Your task to perform on an android device: Open Chrome and go to settings Image 0: 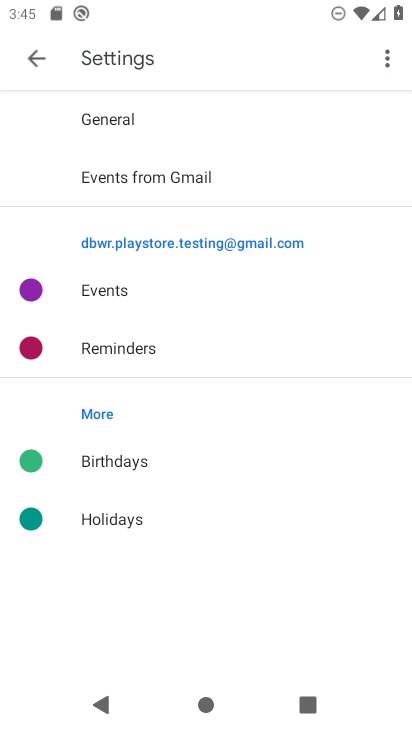
Step 0: press home button
Your task to perform on an android device: Open Chrome and go to settings Image 1: 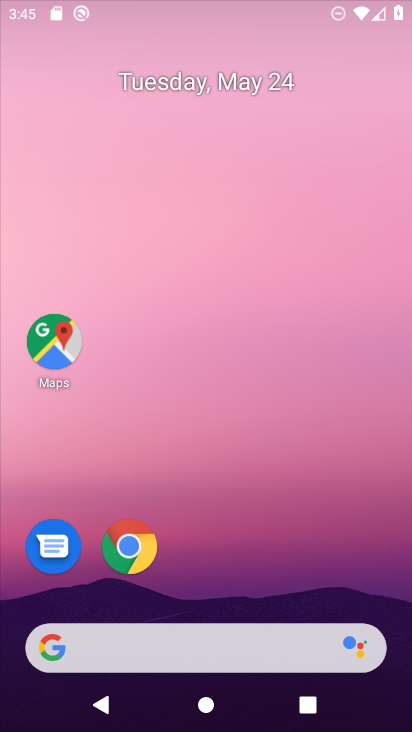
Step 1: drag from (299, 567) to (185, 5)
Your task to perform on an android device: Open Chrome and go to settings Image 2: 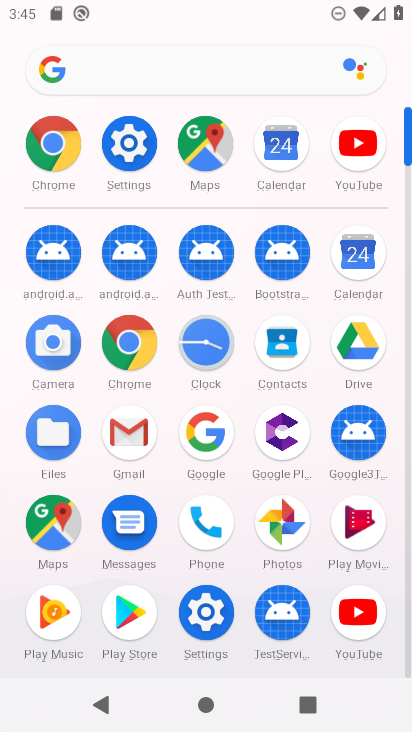
Step 2: click (137, 348)
Your task to perform on an android device: Open Chrome and go to settings Image 3: 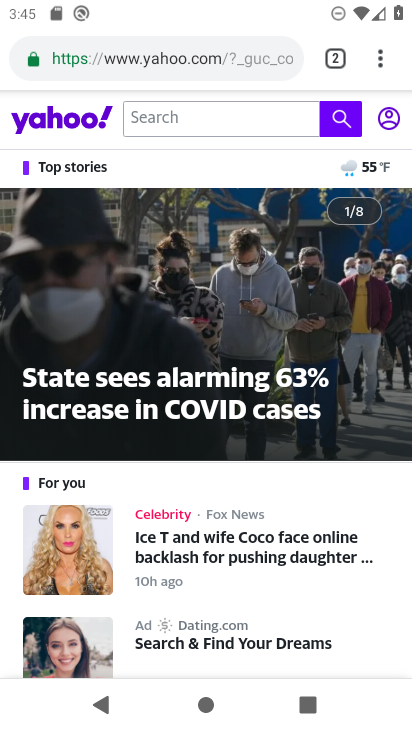
Step 3: click (378, 58)
Your task to perform on an android device: Open Chrome and go to settings Image 4: 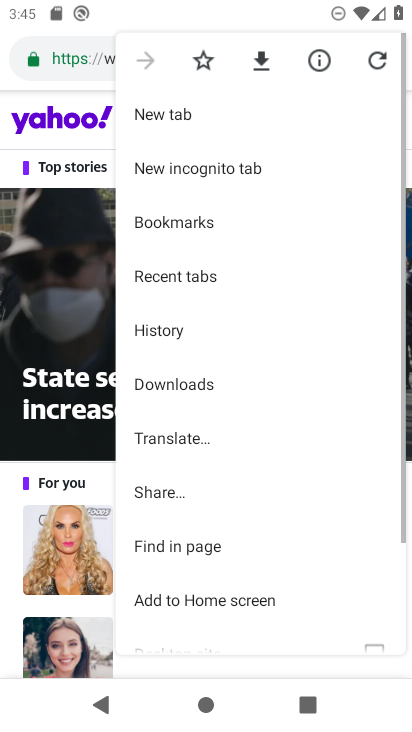
Step 4: drag from (233, 520) to (204, 68)
Your task to perform on an android device: Open Chrome and go to settings Image 5: 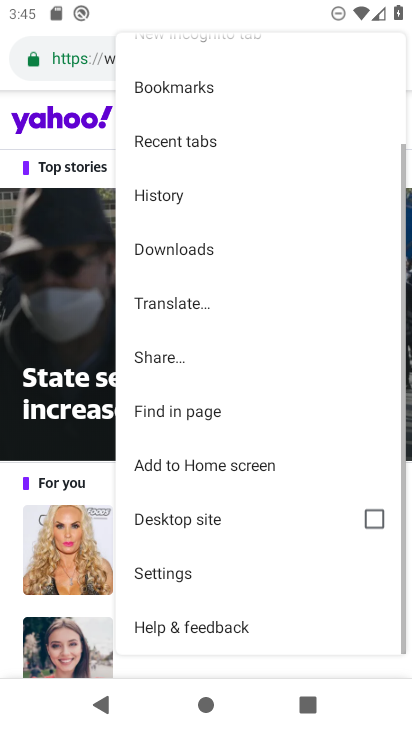
Step 5: click (193, 569)
Your task to perform on an android device: Open Chrome and go to settings Image 6: 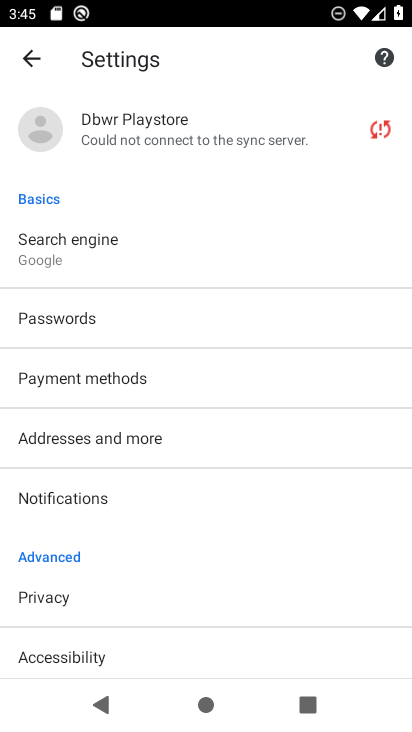
Step 6: task complete